Your task to perform on an android device: Open privacy settings Image 0: 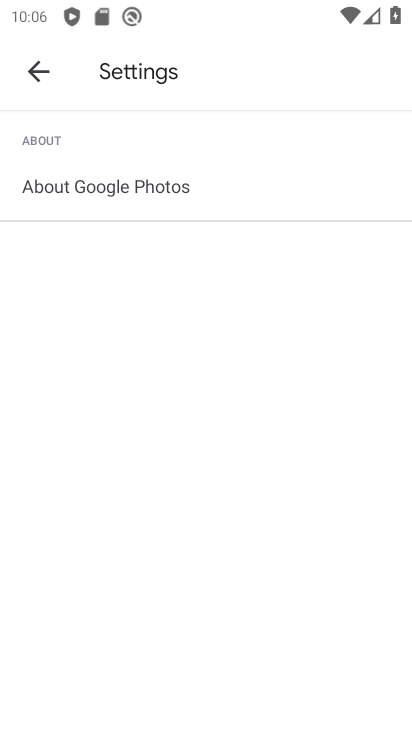
Step 0: press home button
Your task to perform on an android device: Open privacy settings Image 1: 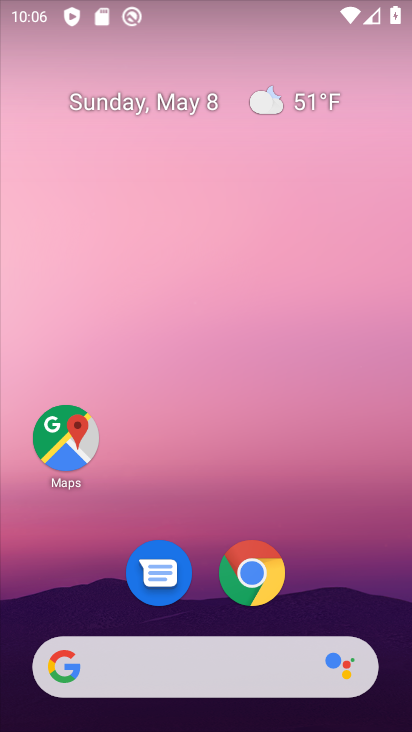
Step 1: drag from (170, 649) to (264, 227)
Your task to perform on an android device: Open privacy settings Image 2: 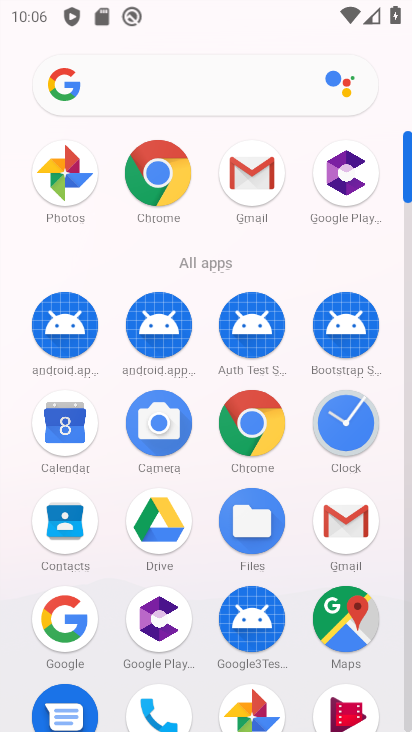
Step 2: drag from (236, 631) to (226, 224)
Your task to perform on an android device: Open privacy settings Image 3: 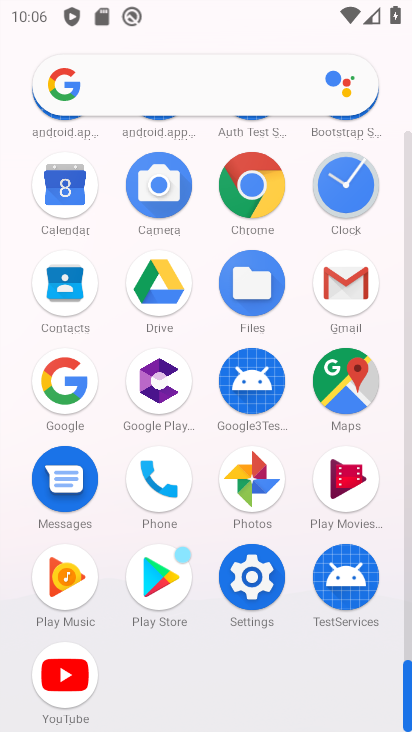
Step 3: click (258, 580)
Your task to perform on an android device: Open privacy settings Image 4: 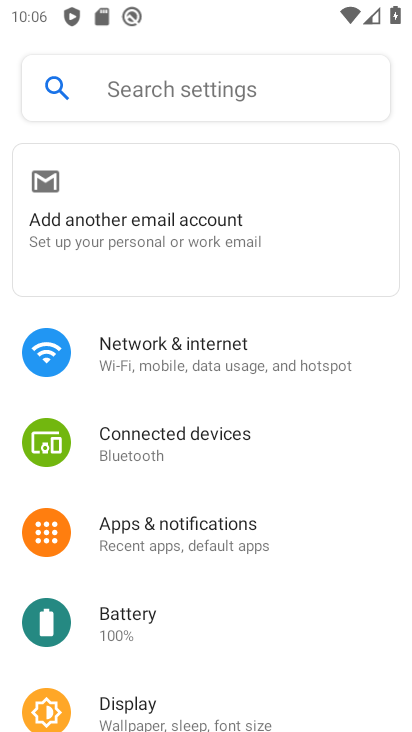
Step 4: drag from (193, 681) to (189, 251)
Your task to perform on an android device: Open privacy settings Image 5: 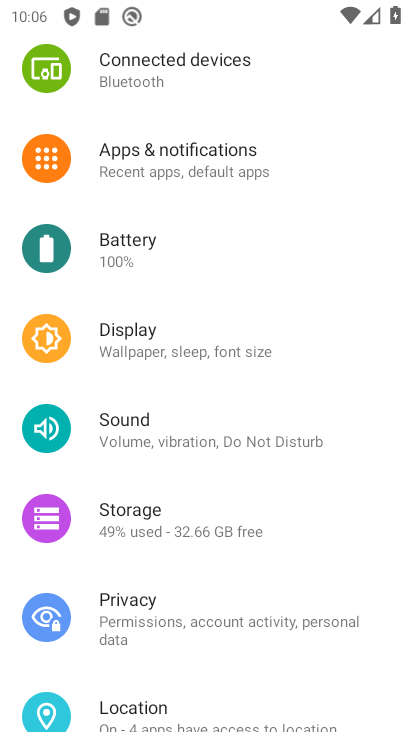
Step 5: click (113, 621)
Your task to perform on an android device: Open privacy settings Image 6: 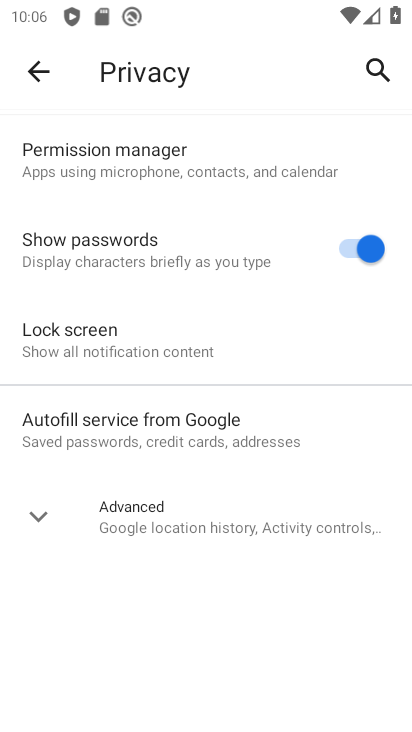
Step 6: click (180, 523)
Your task to perform on an android device: Open privacy settings Image 7: 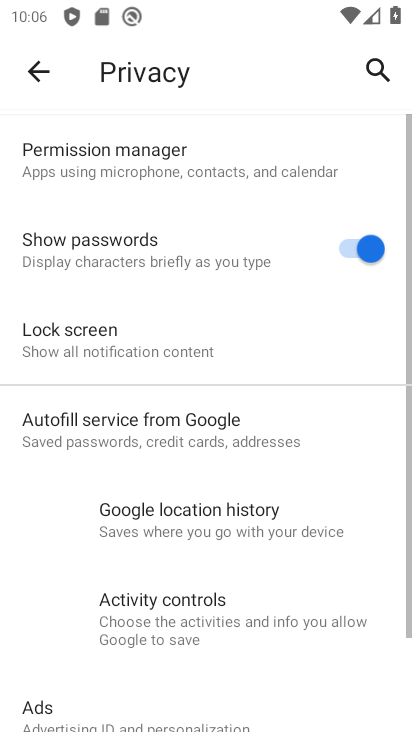
Step 7: task complete